Your task to perform on an android device: Go to CNN.com Image 0: 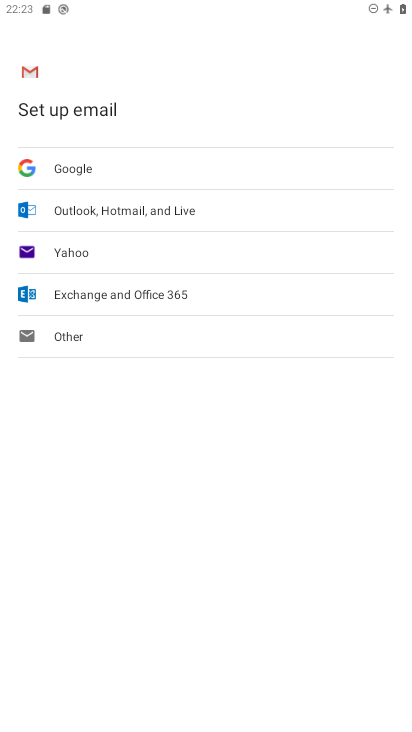
Step 0: press home button
Your task to perform on an android device: Go to CNN.com Image 1: 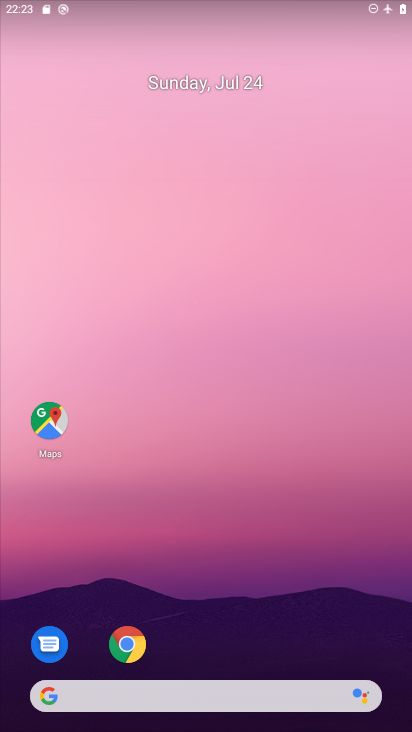
Step 1: click (126, 644)
Your task to perform on an android device: Go to CNN.com Image 2: 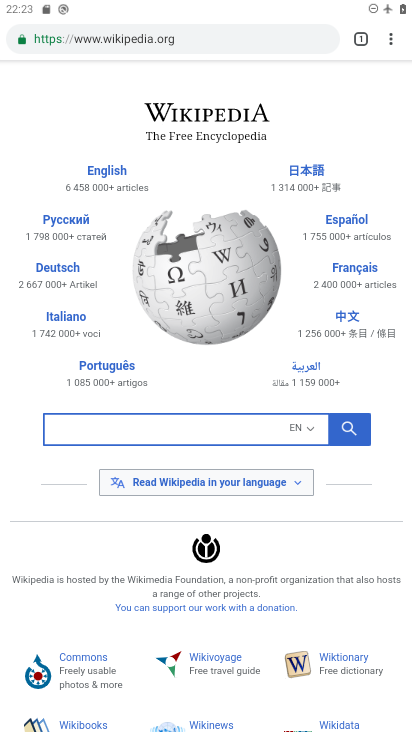
Step 2: click (224, 35)
Your task to perform on an android device: Go to CNN.com Image 3: 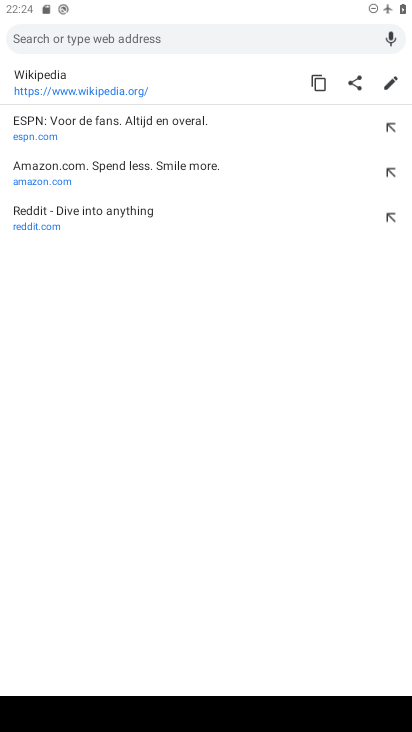
Step 3: type "cnn.com"
Your task to perform on an android device: Go to CNN.com Image 4: 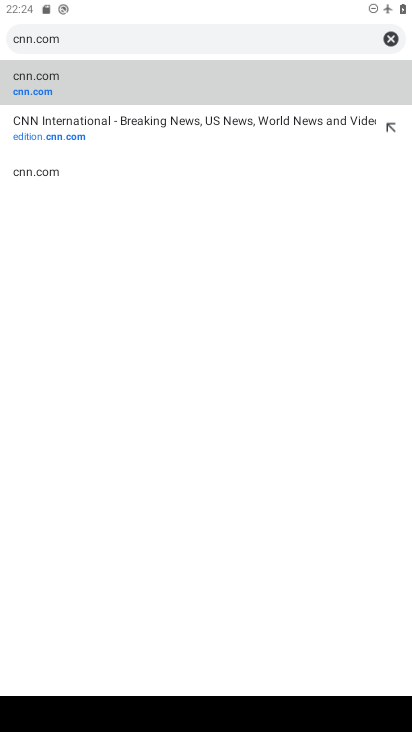
Step 4: click (39, 79)
Your task to perform on an android device: Go to CNN.com Image 5: 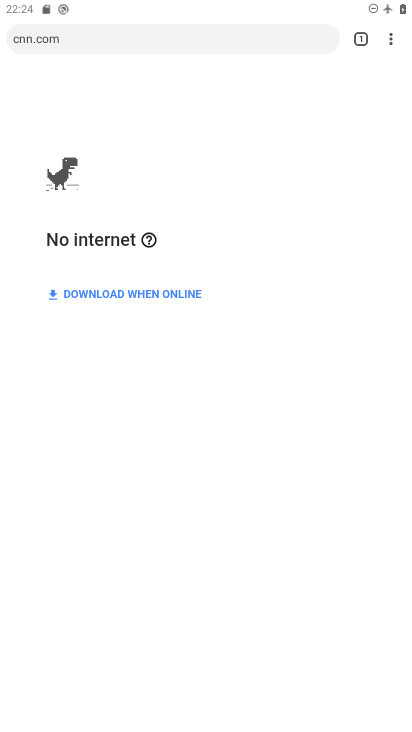
Step 5: task complete